Your task to perform on an android device: When is my next meeting? Image 0: 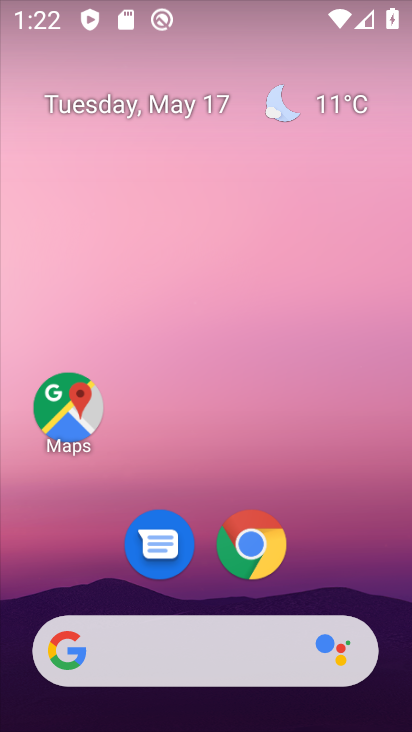
Step 0: press home button
Your task to perform on an android device: When is my next meeting? Image 1: 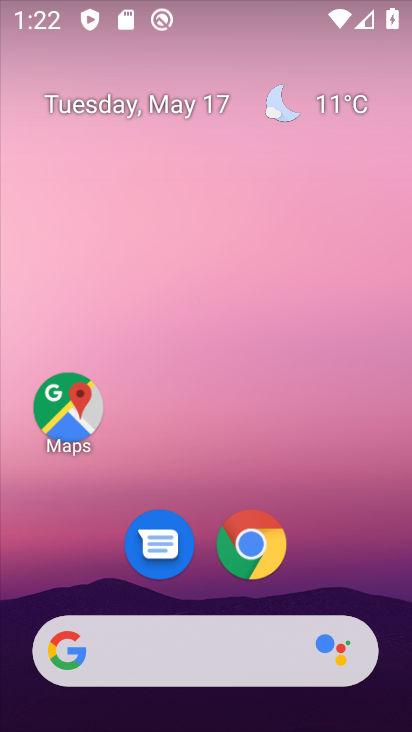
Step 1: drag from (320, 61) to (329, 18)
Your task to perform on an android device: When is my next meeting? Image 2: 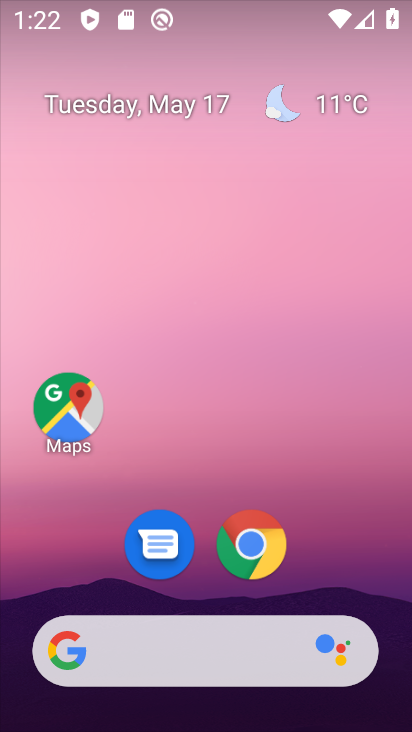
Step 2: drag from (346, 540) to (314, 11)
Your task to perform on an android device: When is my next meeting? Image 3: 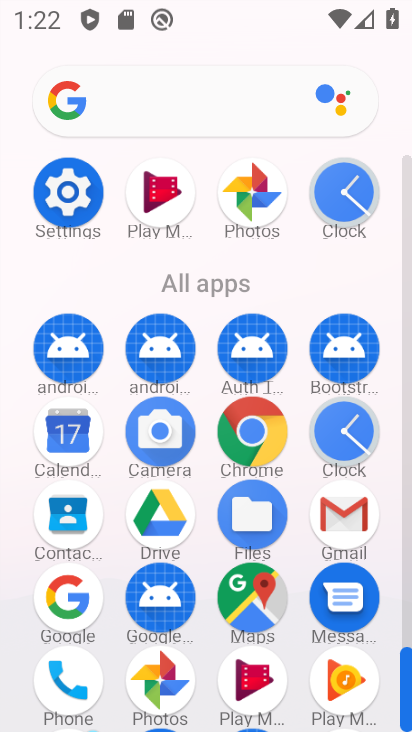
Step 3: click (71, 433)
Your task to perform on an android device: When is my next meeting? Image 4: 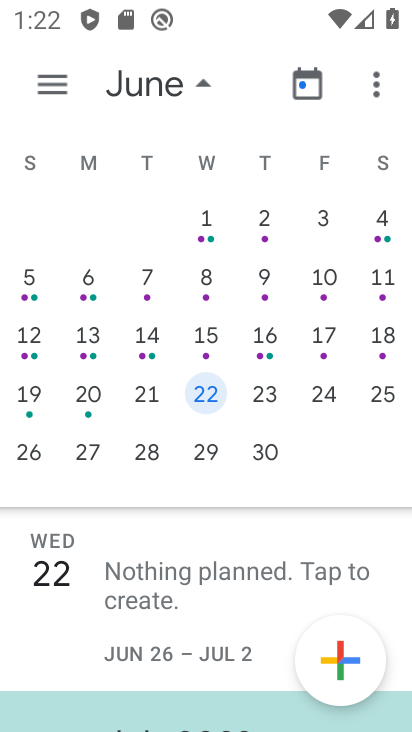
Step 4: drag from (30, 242) to (74, 404)
Your task to perform on an android device: When is my next meeting? Image 5: 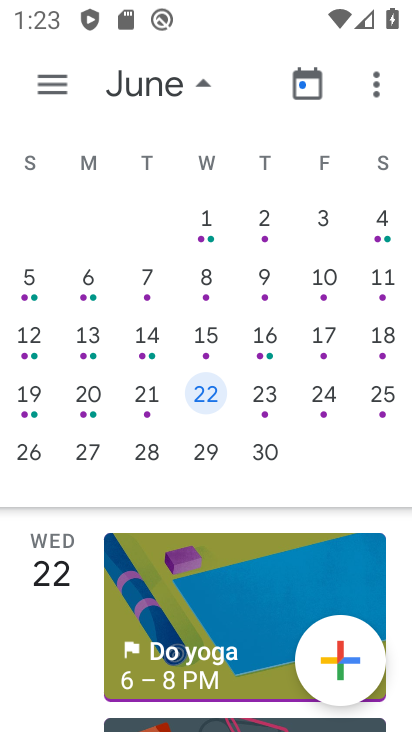
Step 5: drag from (137, 248) to (407, 278)
Your task to perform on an android device: When is my next meeting? Image 6: 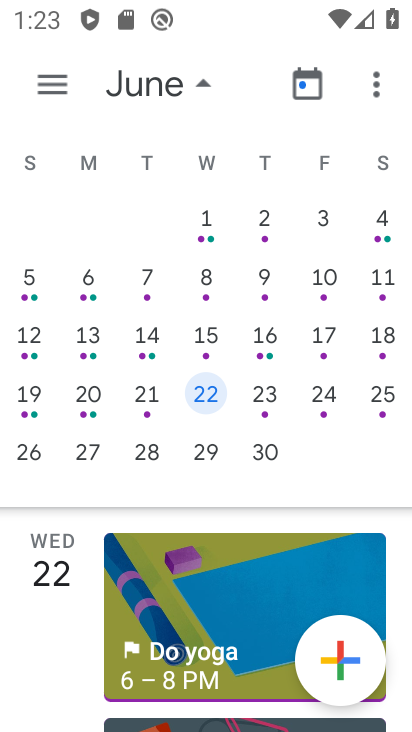
Step 6: drag from (81, 309) to (223, 700)
Your task to perform on an android device: When is my next meeting? Image 7: 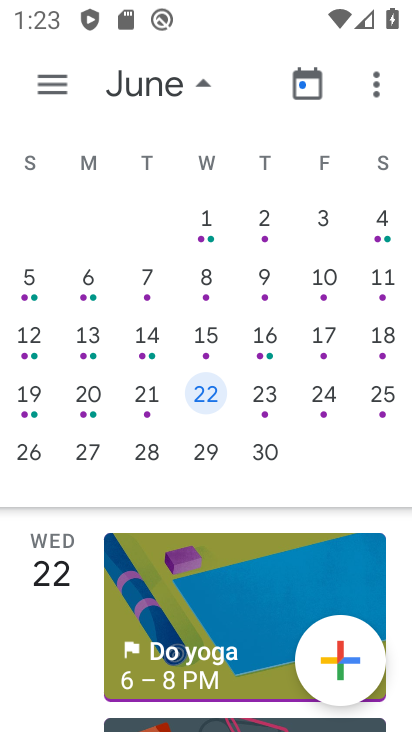
Step 7: drag from (169, 396) to (353, 428)
Your task to perform on an android device: When is my next meeting? Image 8: 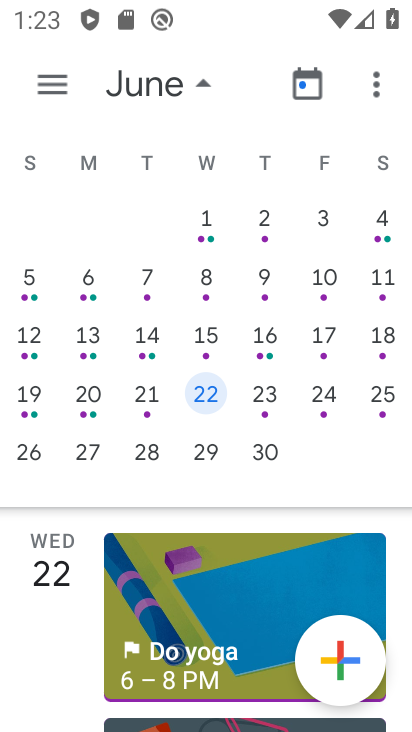
Step 8: drag from (389, 365) to (407, 300)
Your task to perform on an android device: When is my next meeting? Image 9: 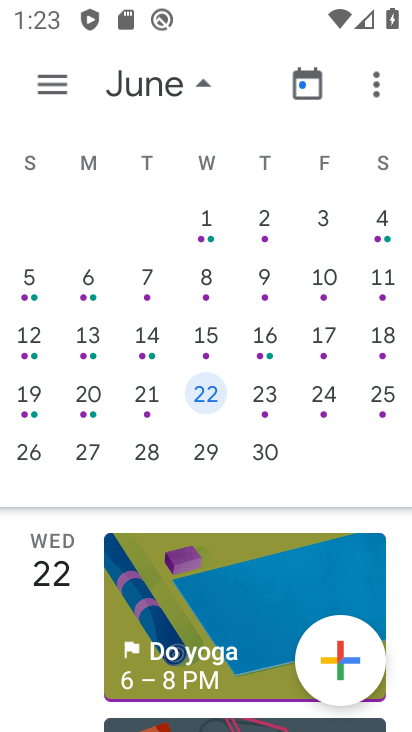
Step 9: drag from (118, 242) to (404, 242)
Your task to perform on an android device: When is my next meeting? Image 10: 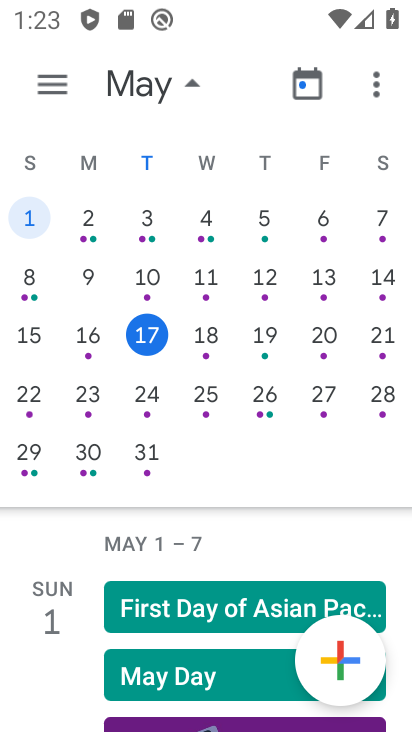
Step 10: click (186, 81)
Your task to perform on an android device: When is my next meeting? Image 11: 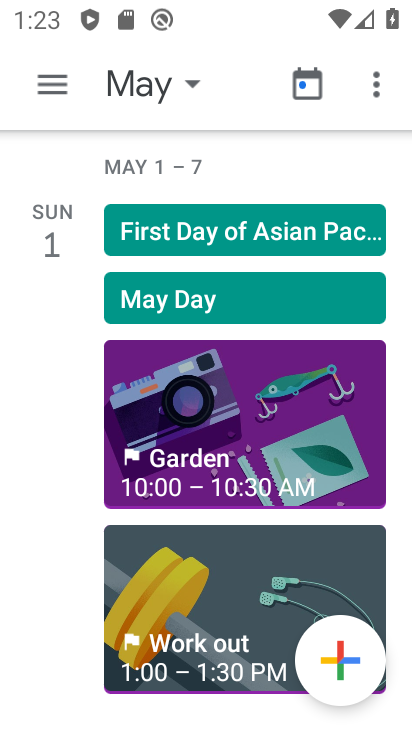
Step 11: task complete